Your task to perform on an android device: add a label to a message in the gmail app Image 0: 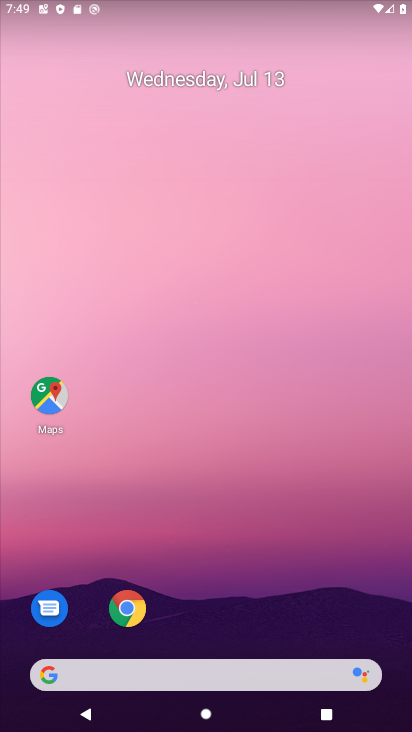
Step 0: drag from (207, 634) to (201, 43)
Your task to perform on an android device: add a label to a message in the gmail app Image 1: 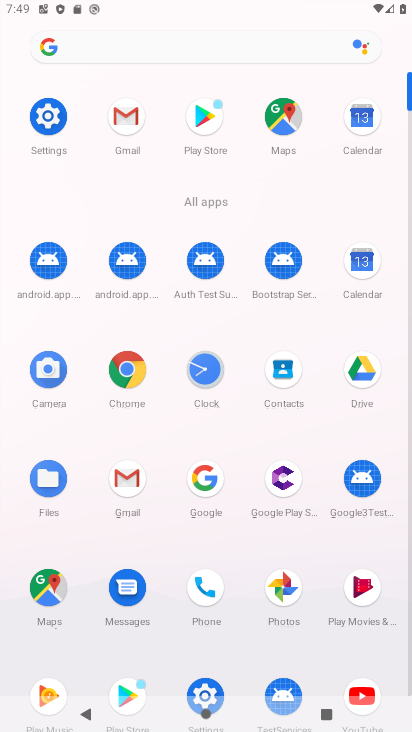
Step 1: click (129, 481)
Your task to perform on an android device: add a label to a message in the gmail app Image 2: 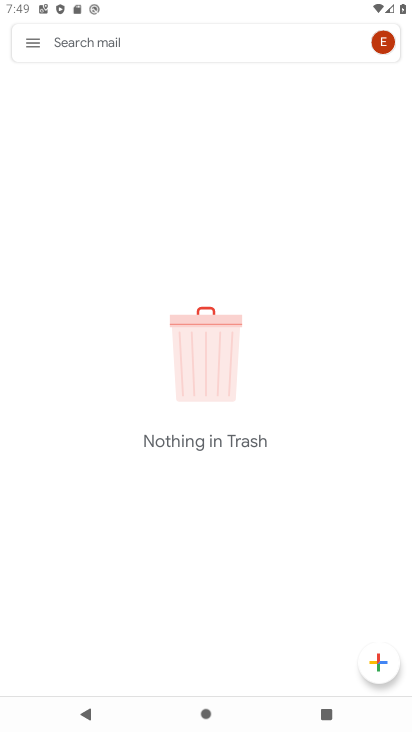
Step 2: click (131, 176)
Your task to perform on an android device: add a label to a message in the gmail app Image 3: 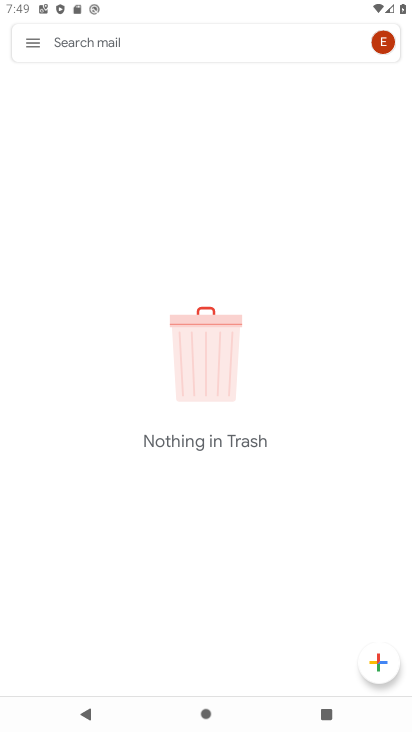
Step 3: click (27, 42)
Your task to perform on an android device: add a label to a message in the gmail app Image 4: 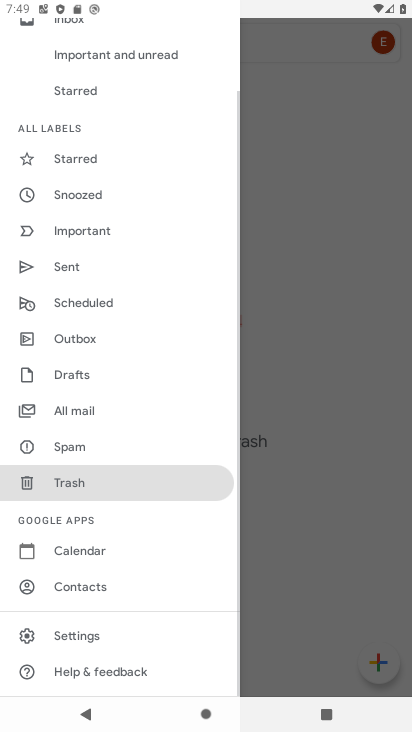
Step 4: drag from (65, 87) to (80, 259)
Your task to perform on an android device: add a label to a message in the gmail app Image 5: 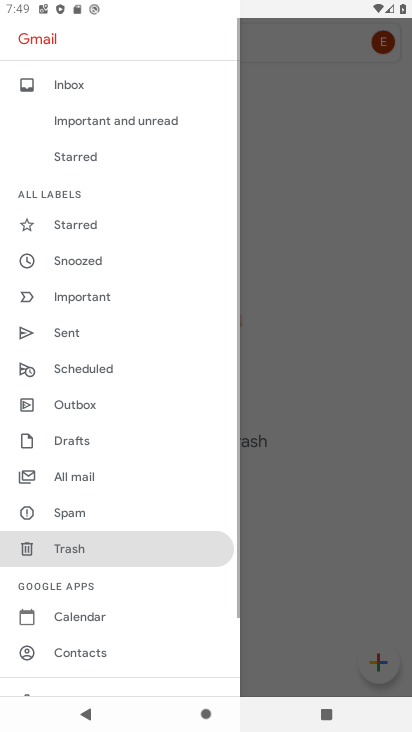
Step 5: click (90, 87)
Your task to perform on an android device: add a label to a message in the gmail app Image 6: 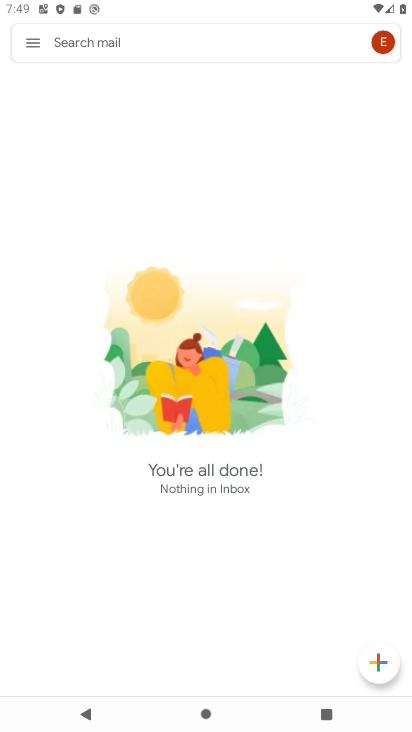
Step 6: task complete